Your task to perform on an android device: Show me popular games on the Play Store Image 0: 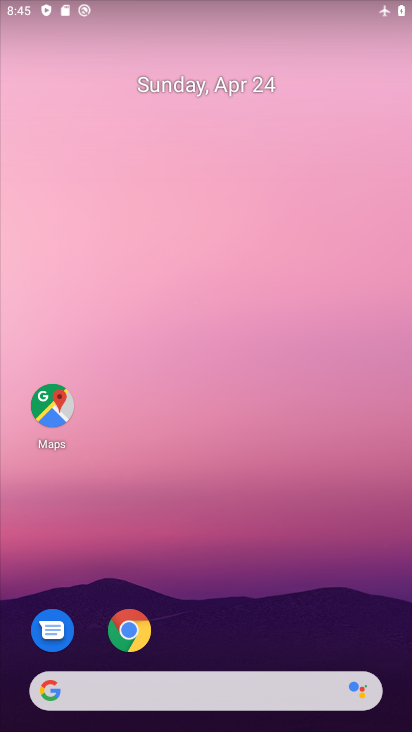
Step 0: drag from (185, 642) to (121, 4)
Your task to perform on an android device: Show me popular games on the Play Store Image 1: 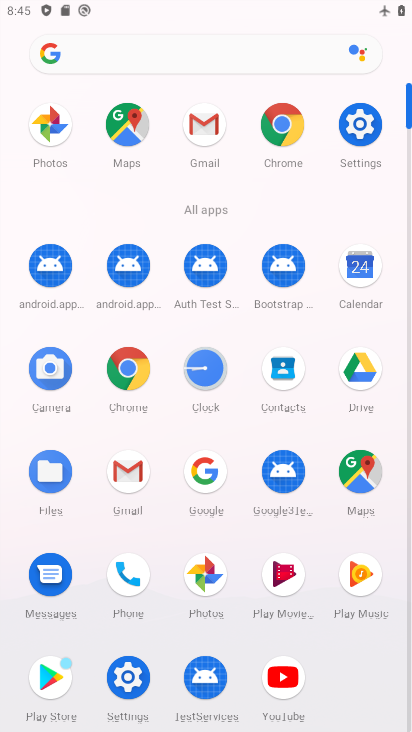
Step 1: click (34, 678)
Your task to perform on an android device: Show me popular games on the Play Store Image 2: 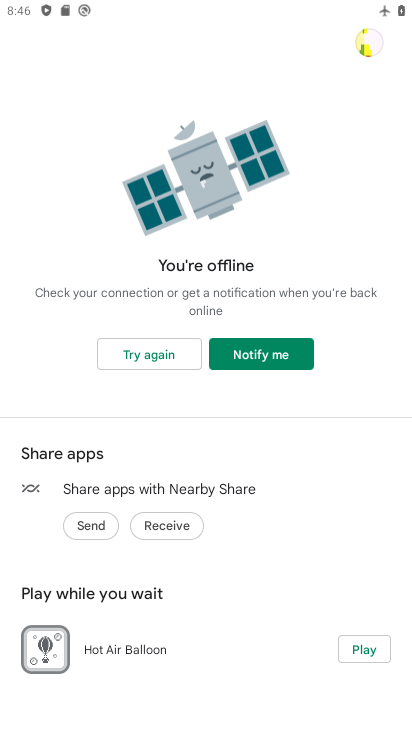
Step 2: task complete